Your task to perform on an android device: What's on my calendar tomorrow? Image 0: 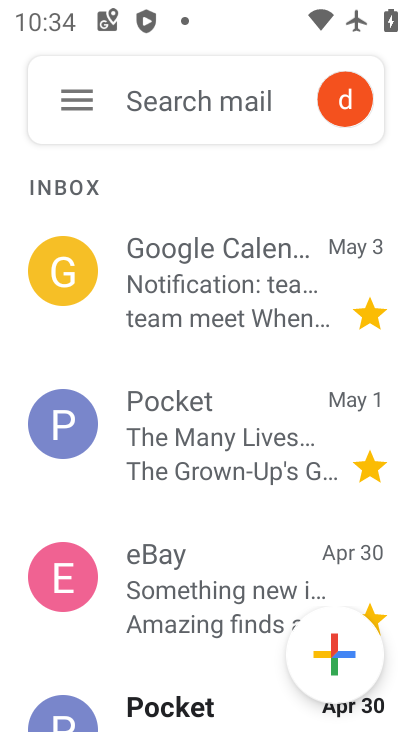
Step 0: press home button
Your task to perform on an android device: What's on my calendar tomorrow? Image 1: 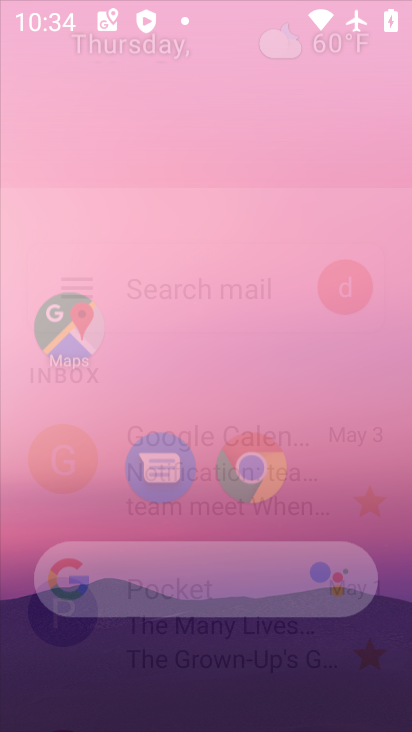
Step 1: press home button
Your task to perform on an android device: What's on my calendar tomorrow? Image 2: 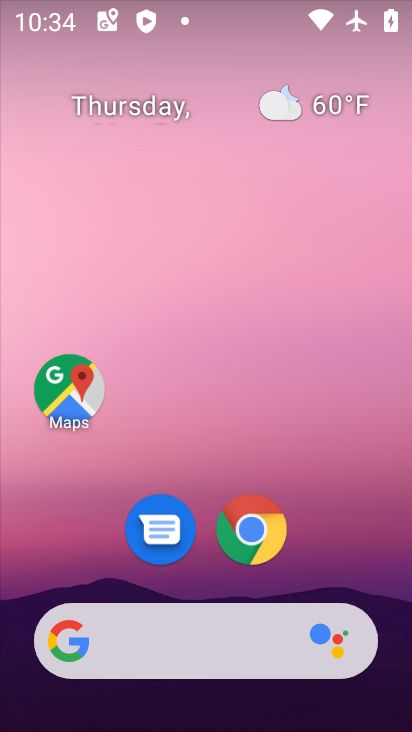
Step 2: drag from (351, 577) to (124, 1)
Your task to perform on an android device: What's on my calendar tomorrow? Image 3: 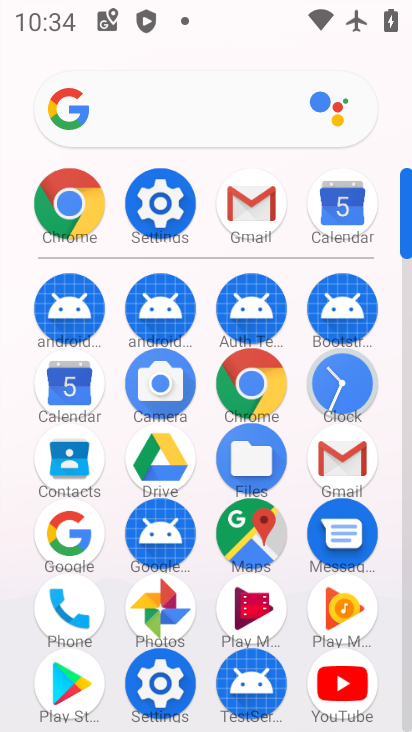
Step 3: click (67, 375)
Your task to perform on an android device: What's on my calendar tomorrow? Image 4: 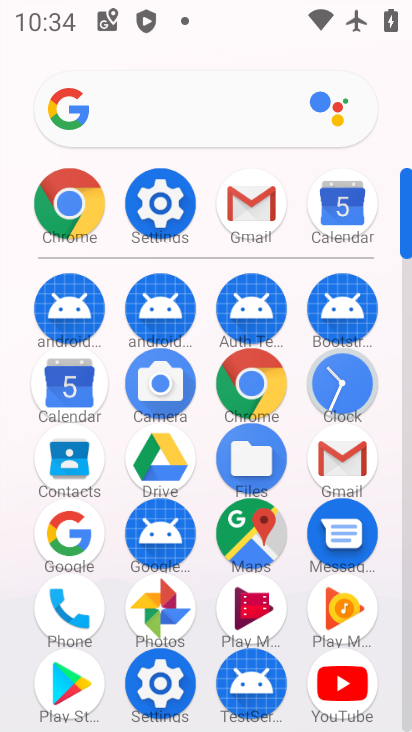
Step 4: click (67, 375)
Your task to perform on an android device: What's on my calendar tomorrow? Image 5: 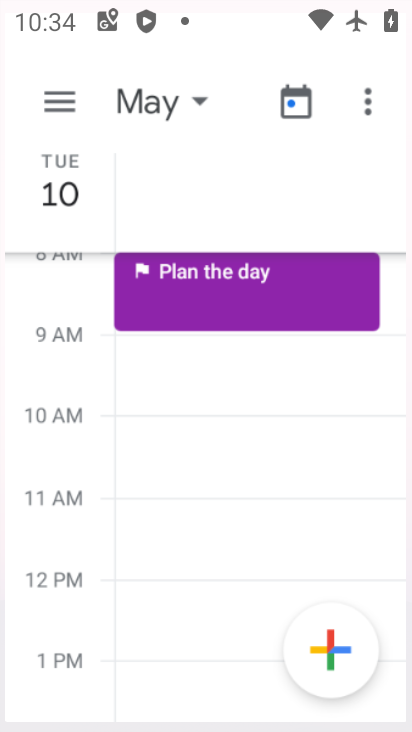
Step 5: click (70, 383)
Your task to perform on an android device: What's on my calendar tomorrow? Image 6: 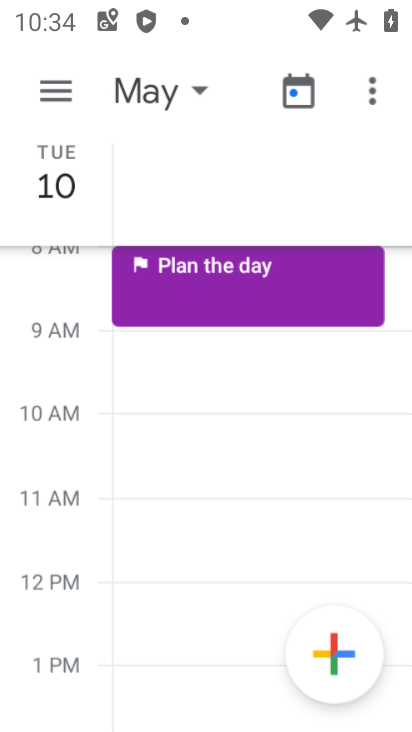
Step 6: click (70, 383)
Your task to perform on an android device: What's on my calendar tomorrow? Image 7: 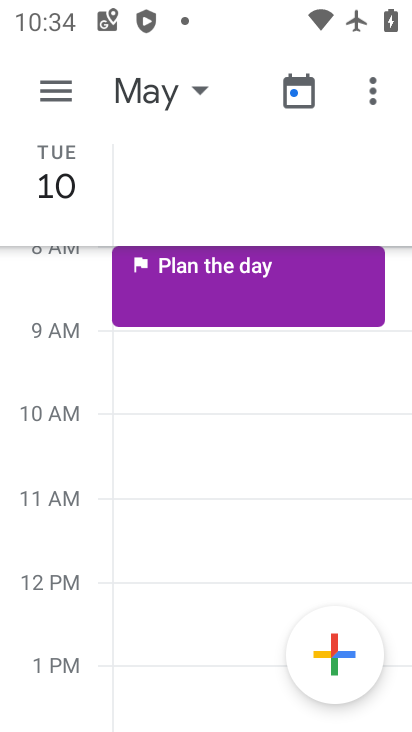
Step 7: click (193, 91)
Your task to perform on an android device: What's on my calendar tomorrow? Image 8: 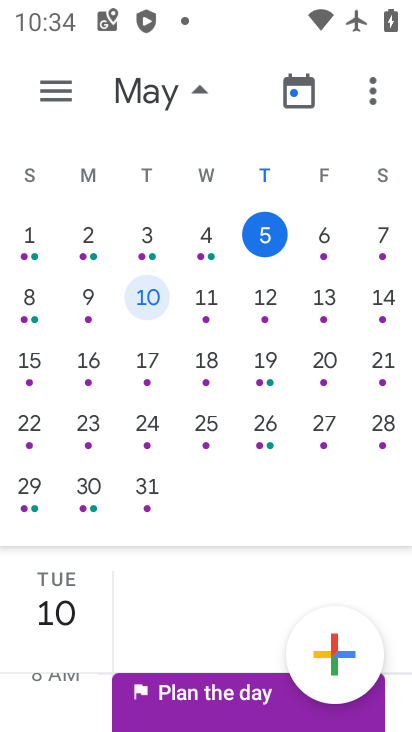
Step 8: task complete